Your task to perform on an android device: Open Yahoo.com Image 0: 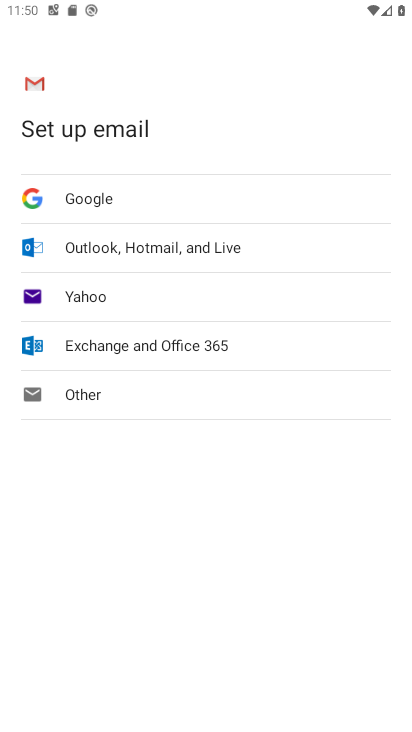
Step 0: press home button
Your task to perform on an android device: Open Yahoo.com Image 1: 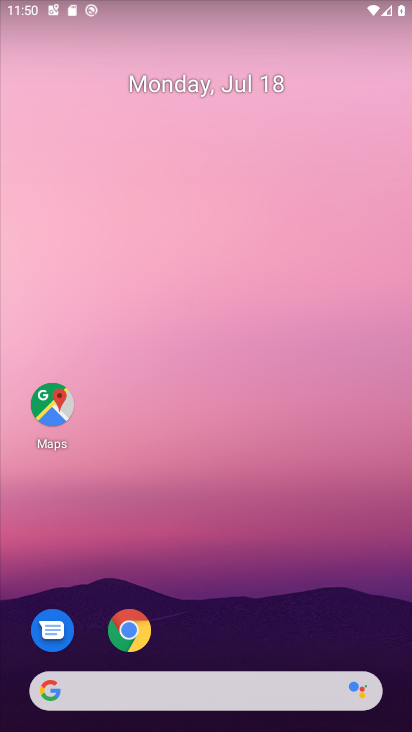
Step 1: click (126, 628)
Your task to perform on an android device: Open Yahoo.com Image 2: 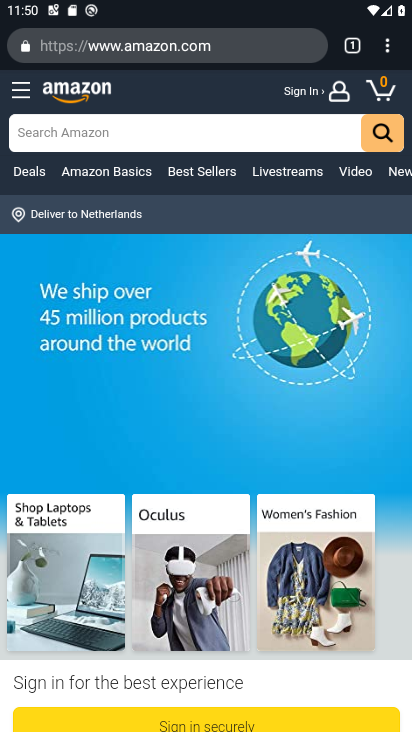
Step 2: click (188, 47)
Your task to perform on an android device: Open Yahoo.com Image 3: 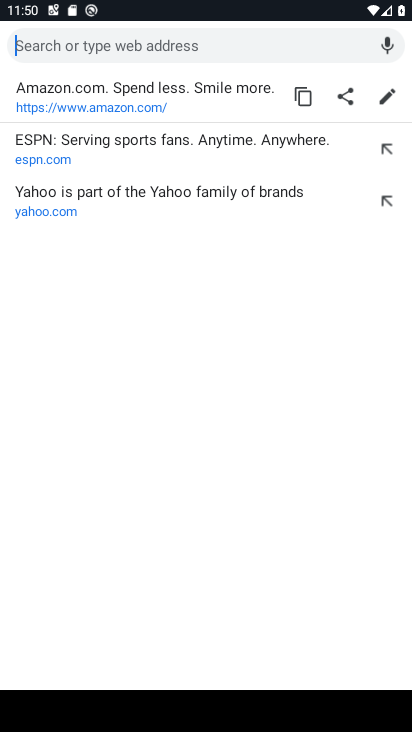
Step 3: type "yahoo.com"
Your task to perform on an android device: Open Yahoo.com Image 4: 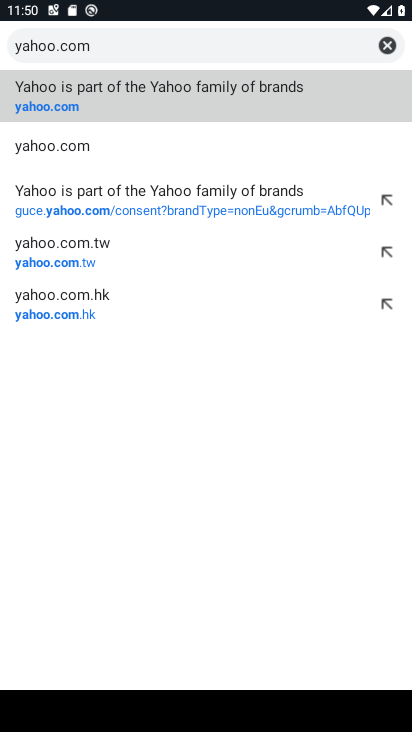
Step 4: click (91, 141)
Your task to perform on an android device: Open Yahoo.com Image 5: 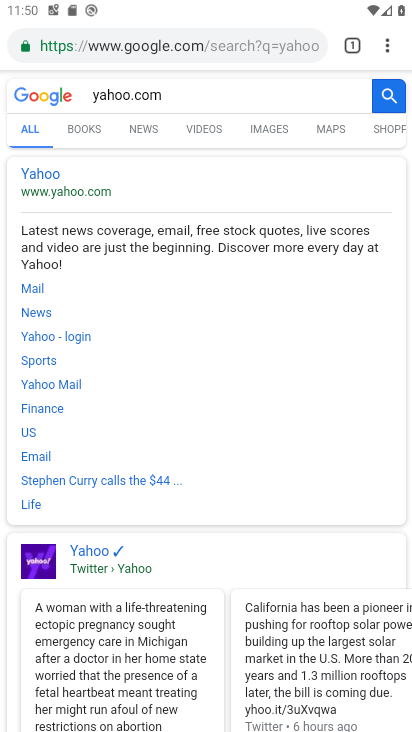
Step 5: task complete